Your task to perform on an android device: Add "acer predator" to the cart on ebay.com Image 0: 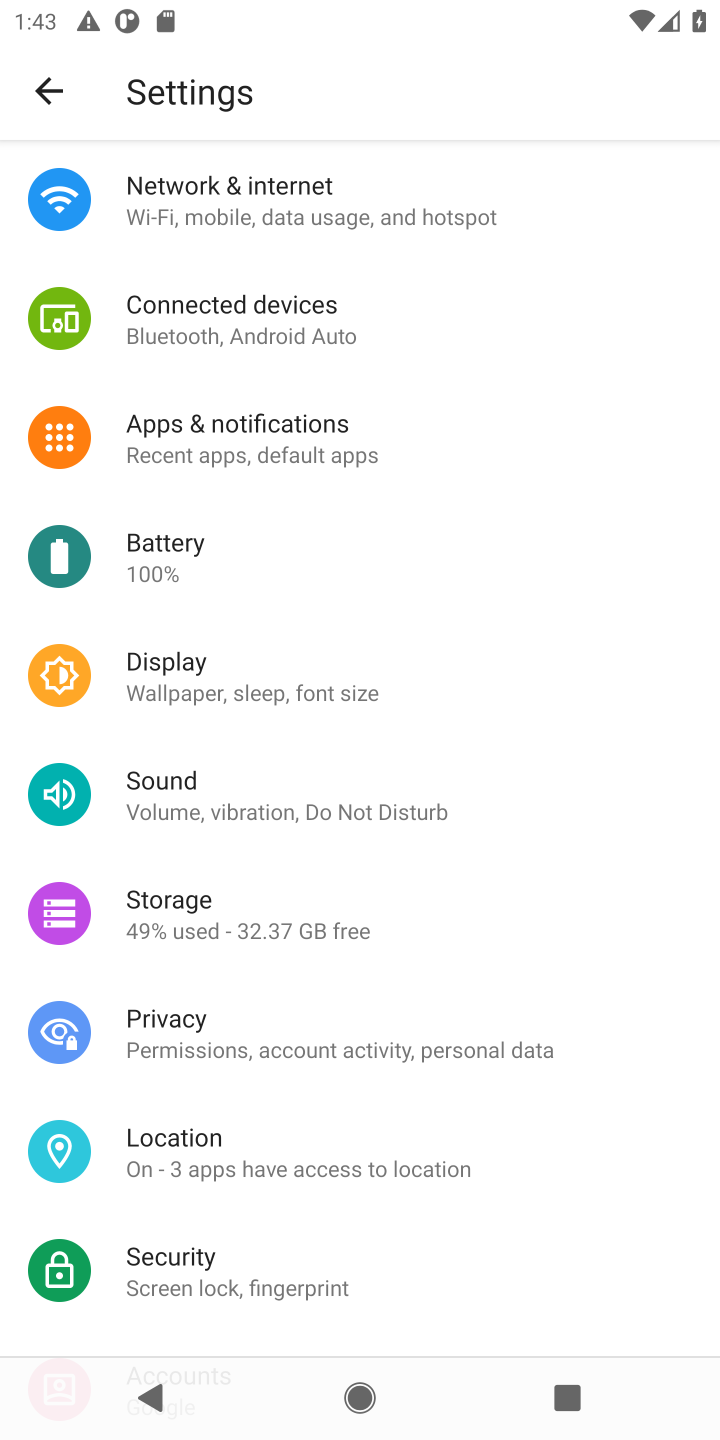
Step 0: press home button
Your task to perform on an android device: Add "acer predator" to the cart on ebay.com Image 1: 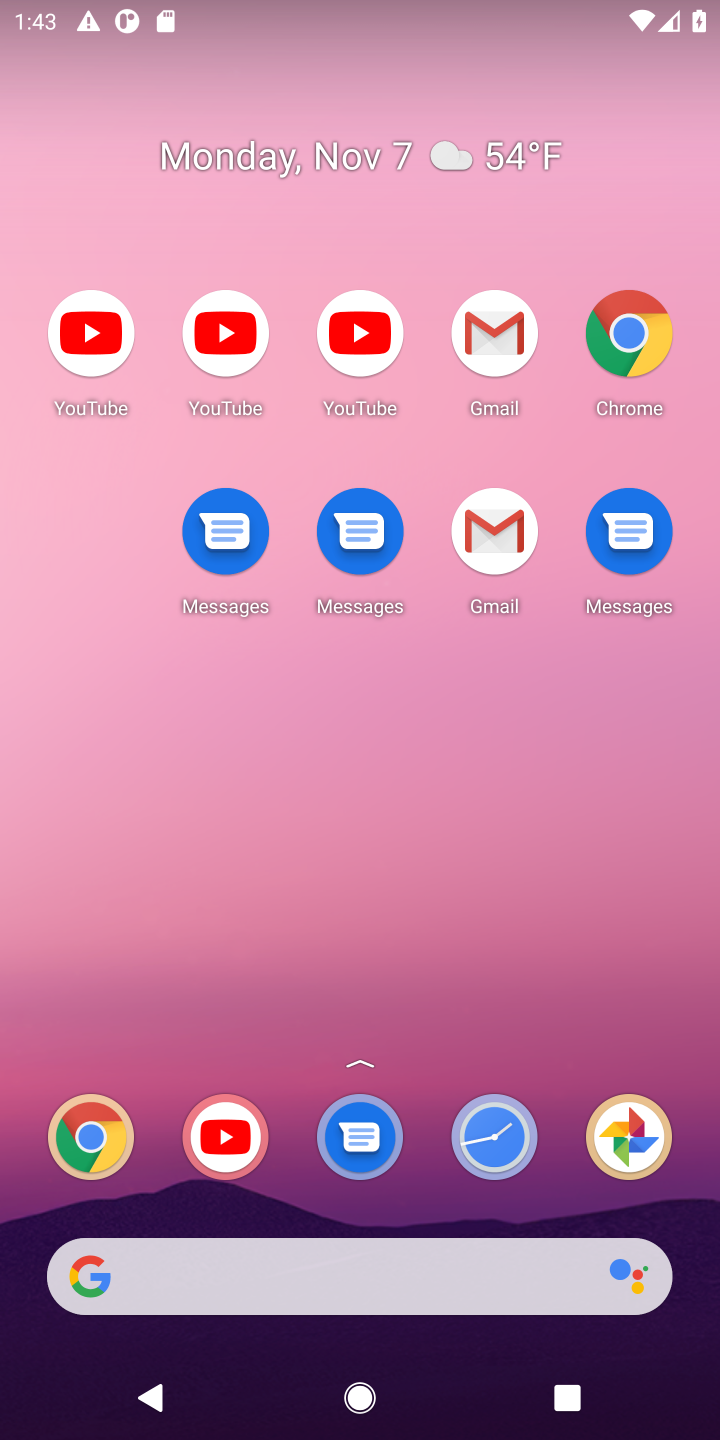
Step 1: drag from (459, 1154) to (450, 251)
Your task to perform on an android device: Add "acer predator" to the cart on ebay.com Image 2: 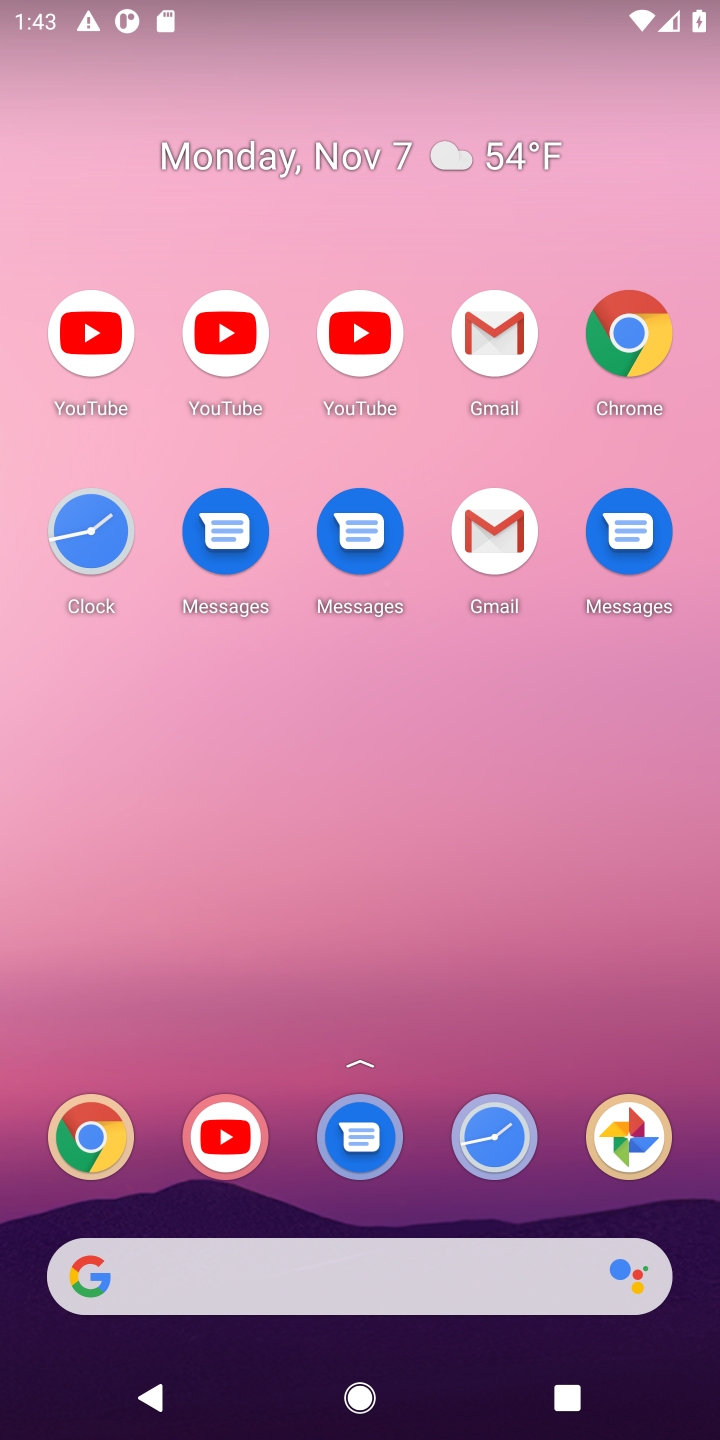
Step 2: drag from (424, 1122) to (311, 273)
Your task to perform on an android device: Add "acer predator" to the cart on ebay.com Image 3: 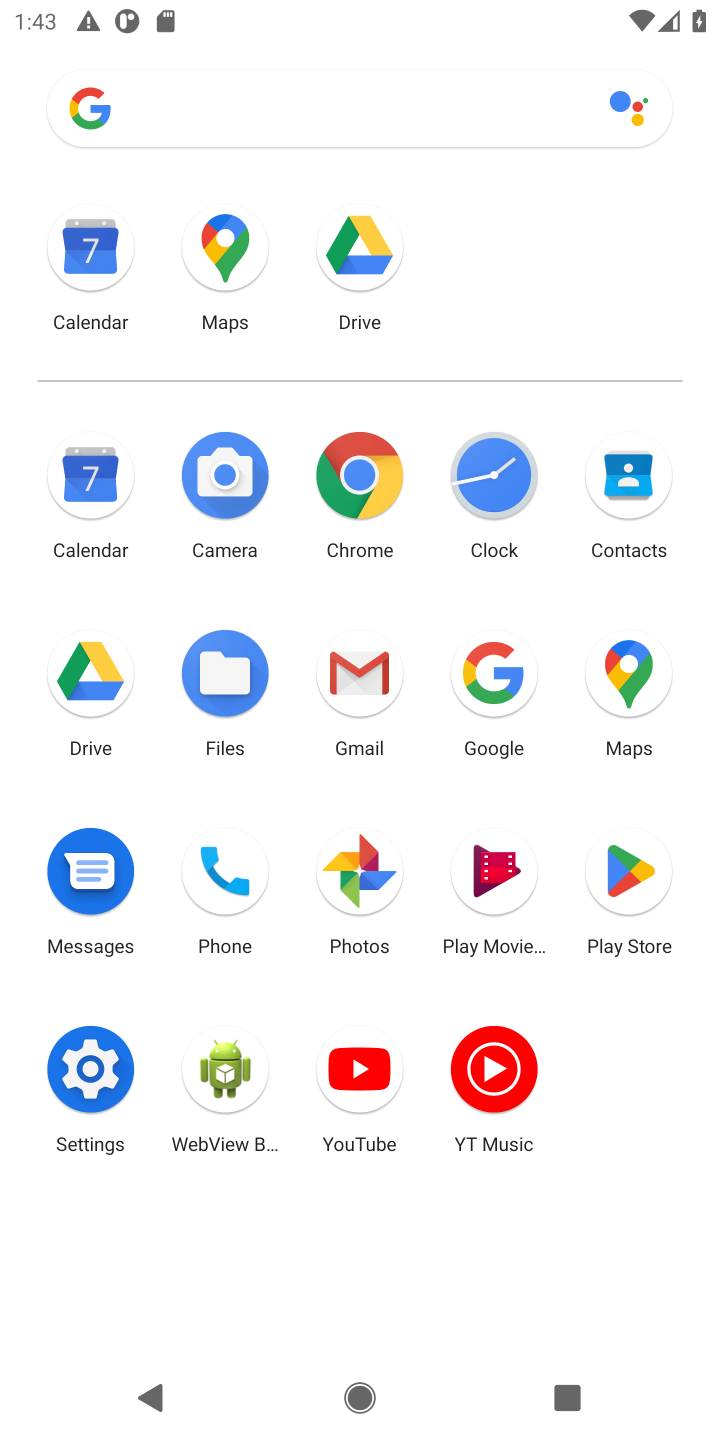
Step 3: click (358, 480)
Your task to perform on an android device: Add "acer predator" to the cart on ebay.com Image 4: 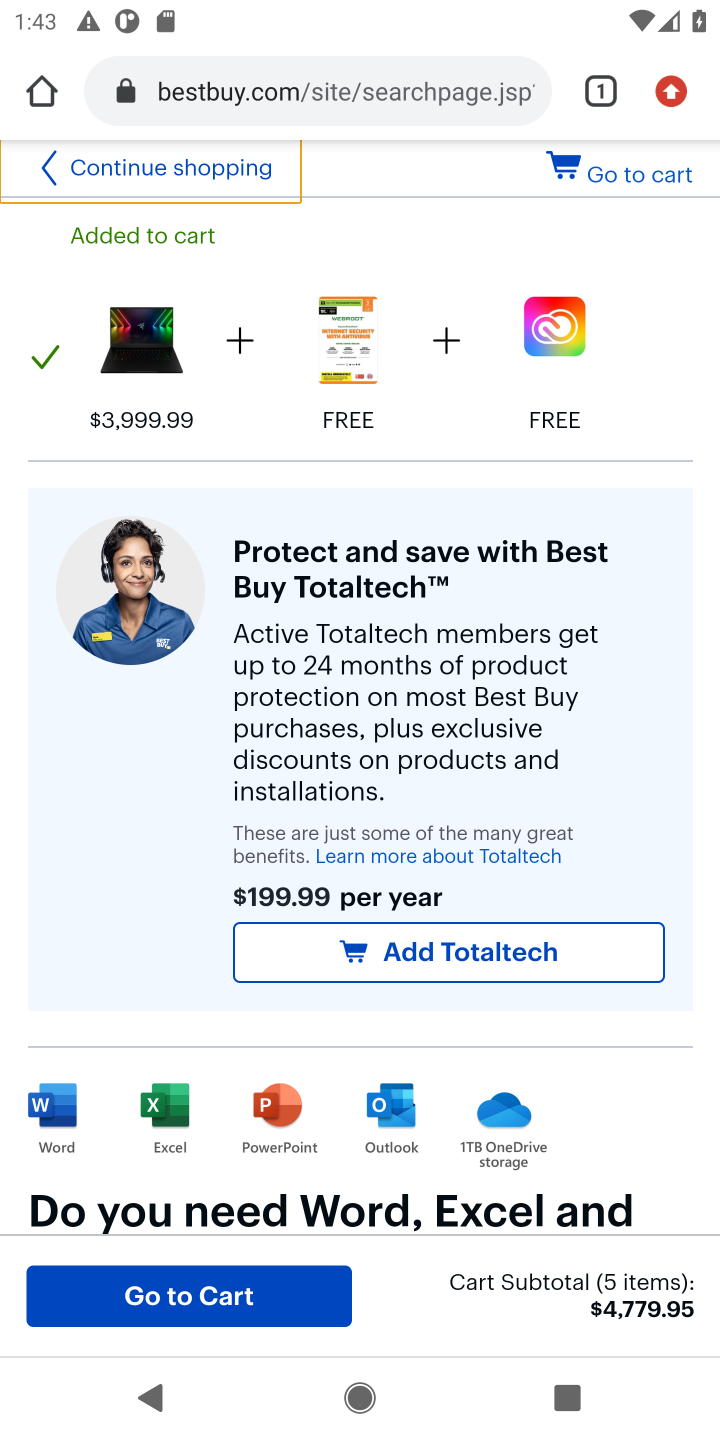
Step 4: click (436, 72)
Your task to perform on an android device: Add "acer predator" to the cart on ebay.com Image 5: 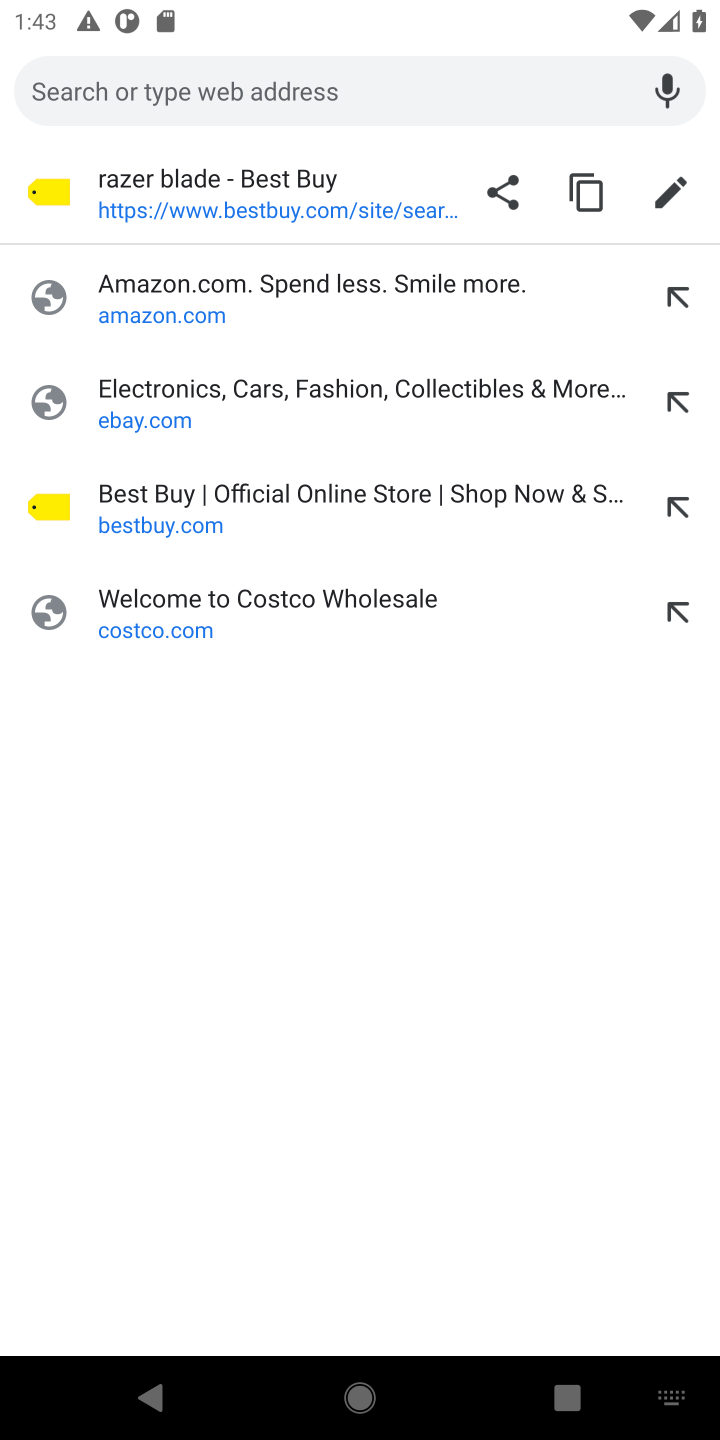
Step 5: type "ebay.com"
Your task to perform on an android device: Add "acer predator" to the cart on ebay.com Image 6: 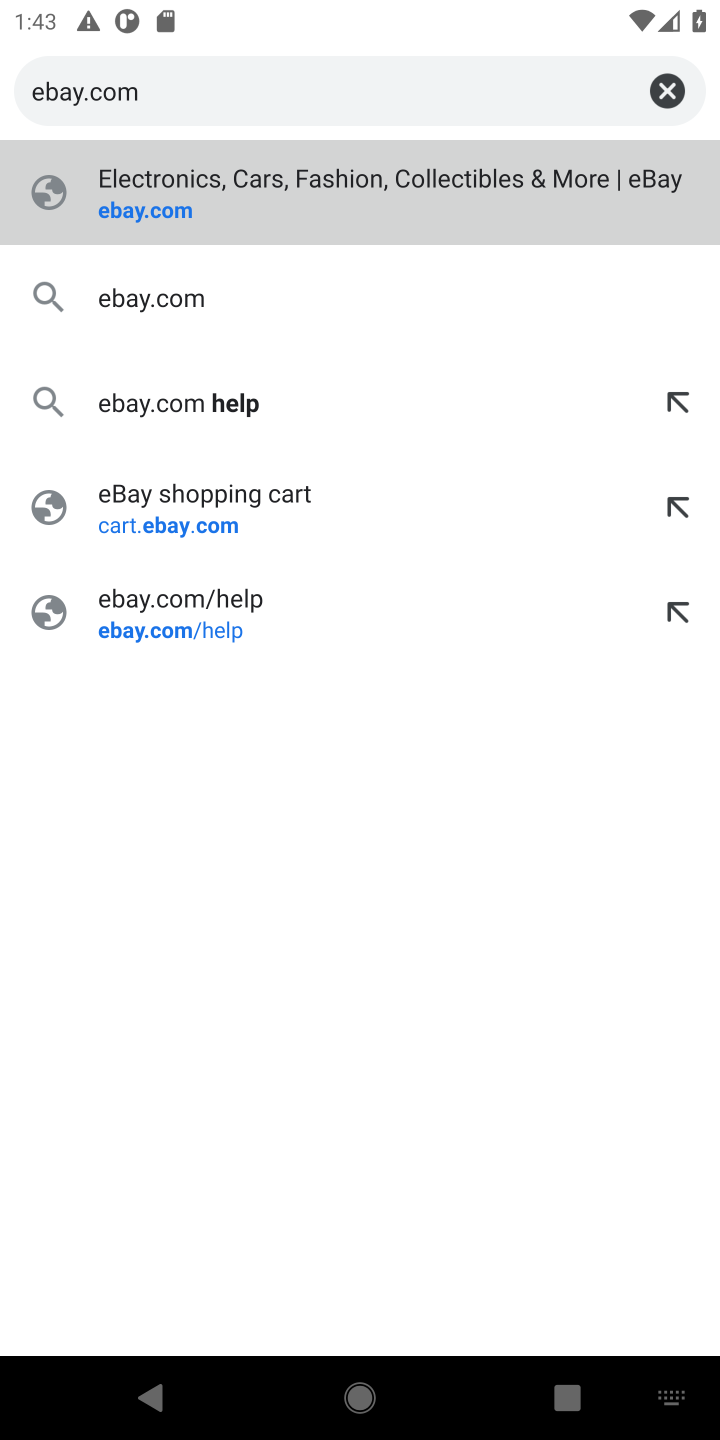
Step 6: press enter
Your task to perform on an android device: Add "acer predator" to the cart on ebay.com Image 7: 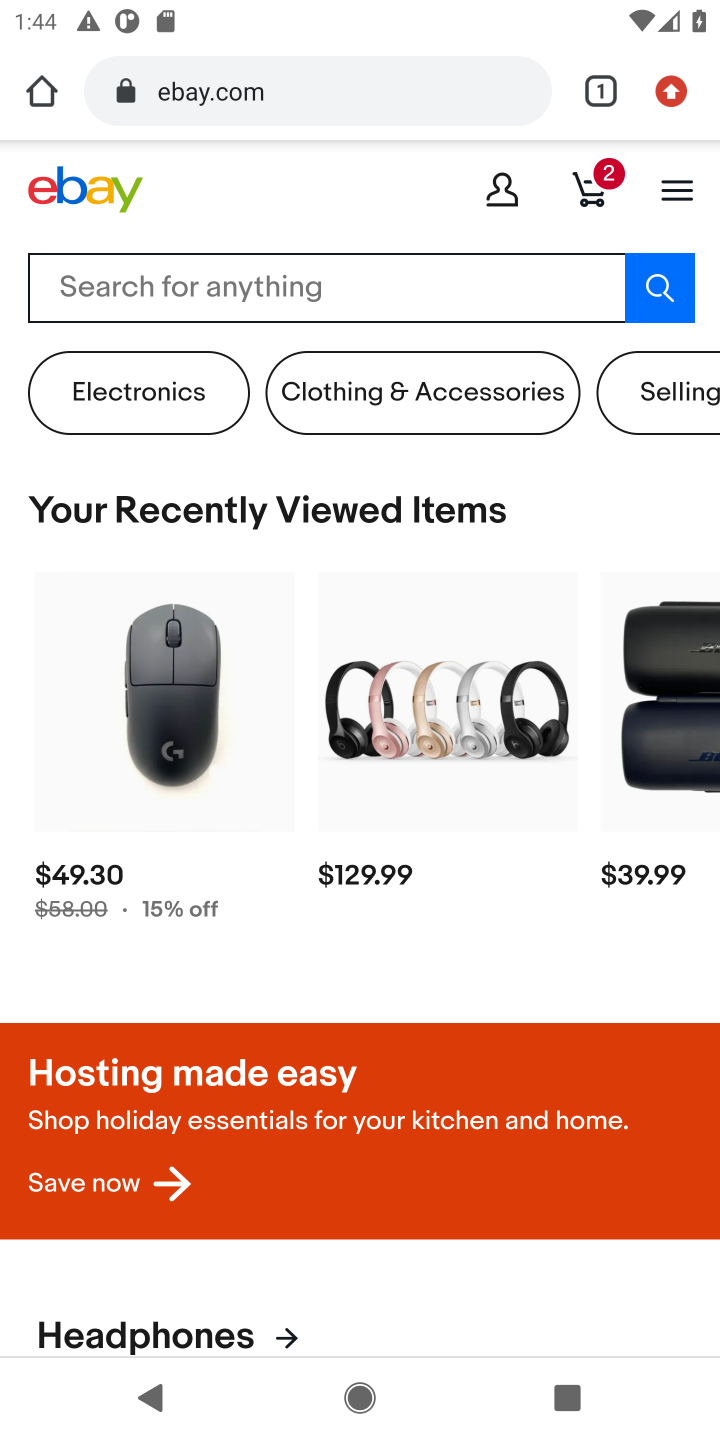
Step 7: click (426, 288)
Your task to perform on an android device: Add "acer predator" to the cart on ebay.com Image 8: 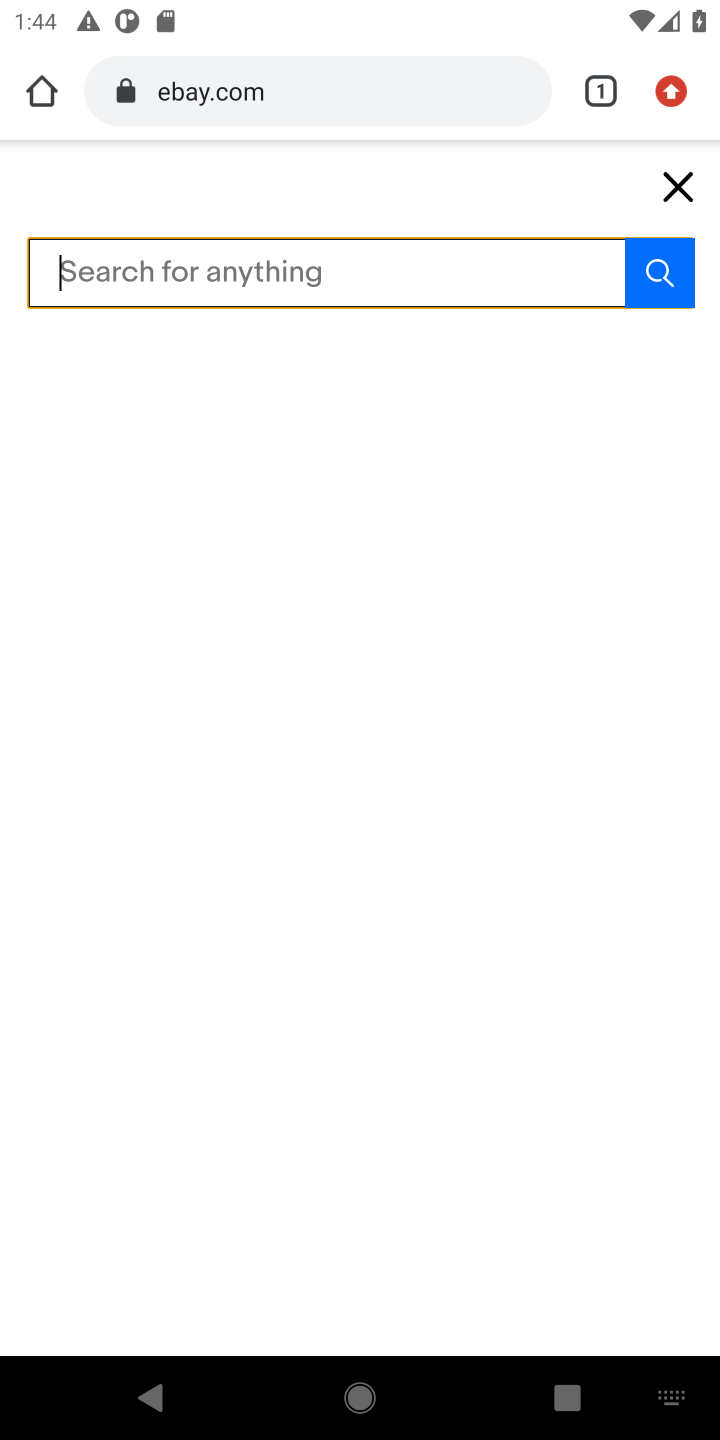
Step 8: type "acer predator"
Your task to perform on an android device: Add "acer predator" to the cart on ebay.com Image 9: 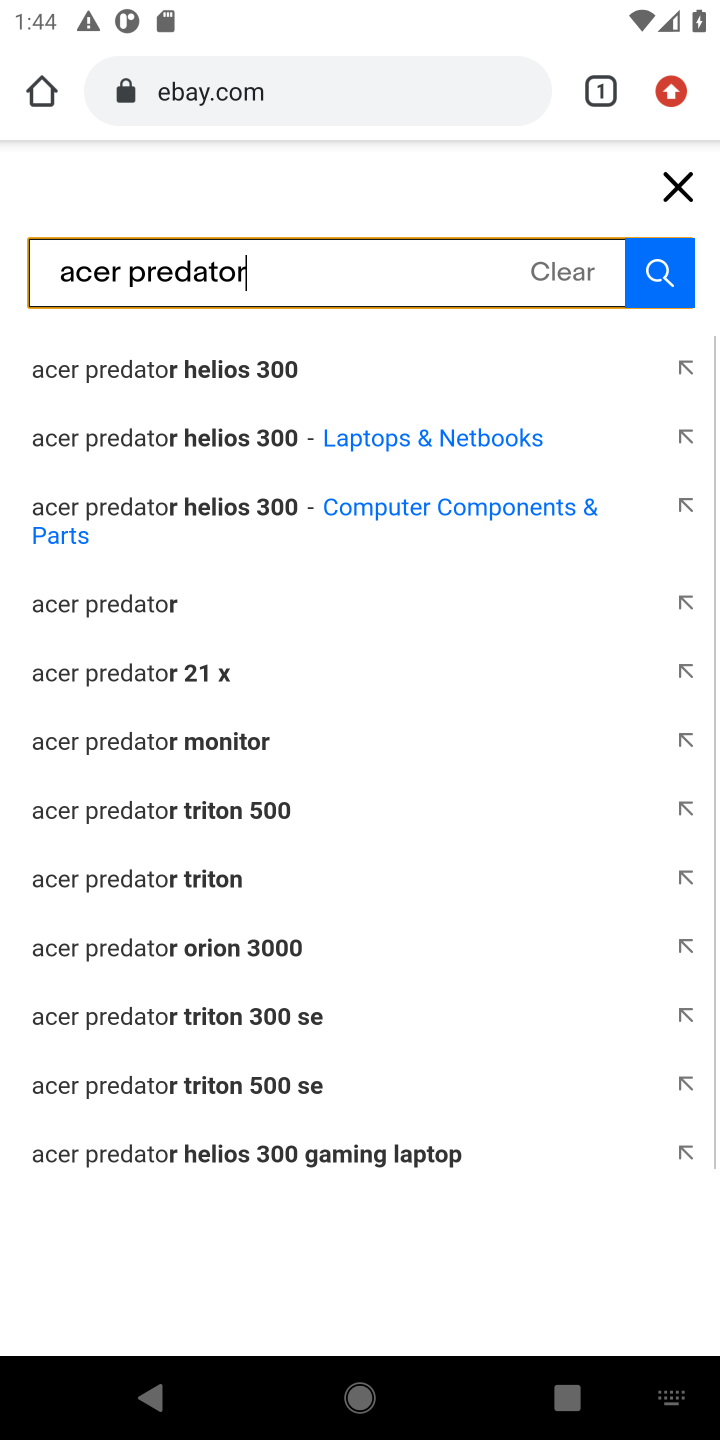
Step 9: press enter
Your task to perform on an android device: Add "acer predator" to the cart on ebay.com Image 10: 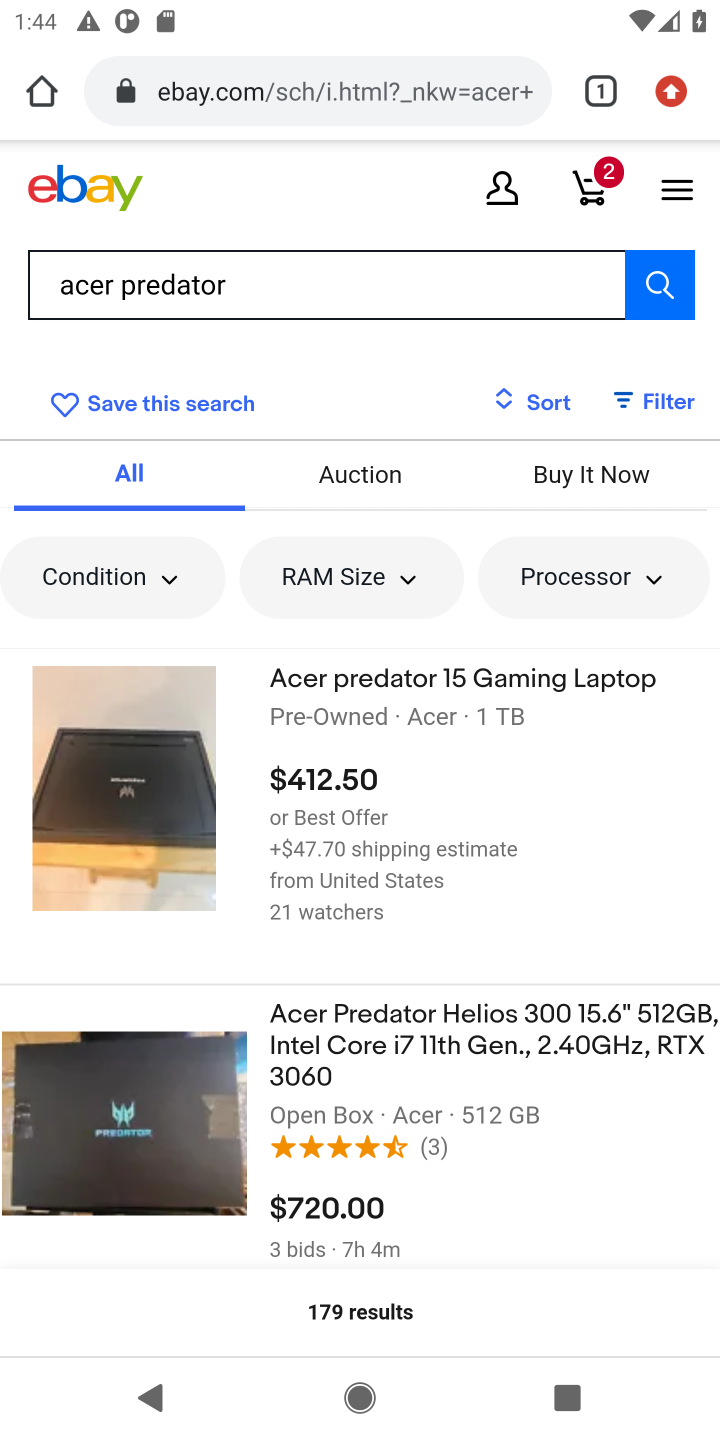
Step 10: click (133, 777)
Your task to perform on an android device: Add "acer predator" to the cart on ebay.com Image 11: 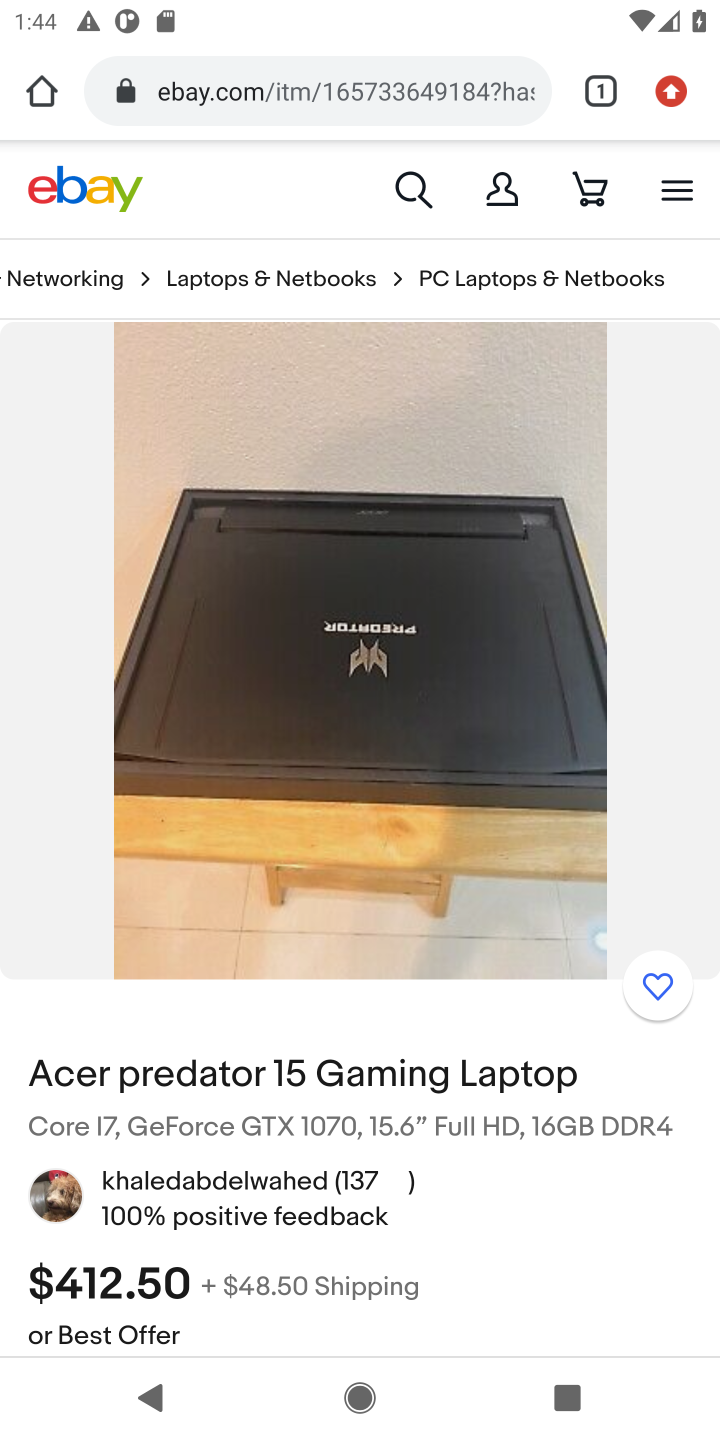
Step 11: drag from (464, 1075) to (449, 364)
Your task to perform on an android device: Add "acer predator" to the cart on ebay.com Image 12: 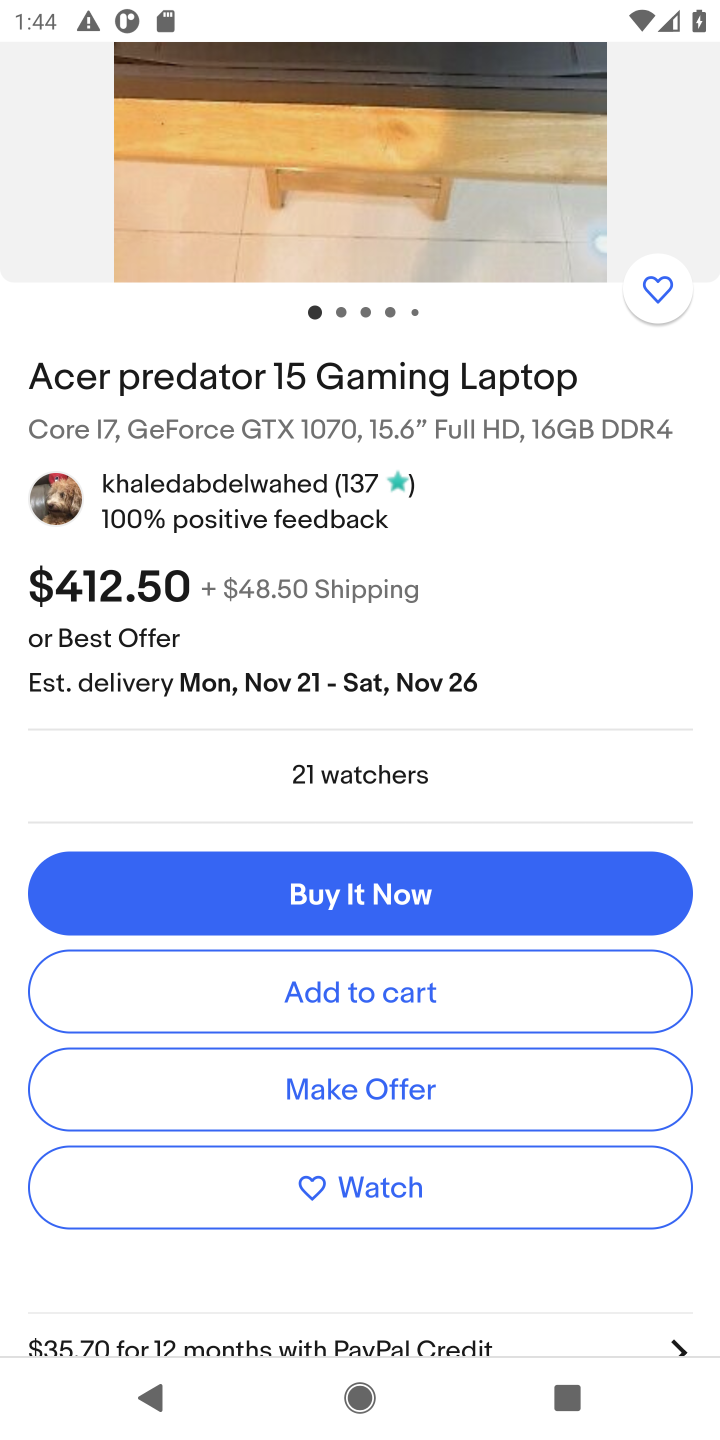
Step 12: click (420, 989)
Your task to perform on an android device: Add "acer predator" to the cart on ebay.com Image 13: 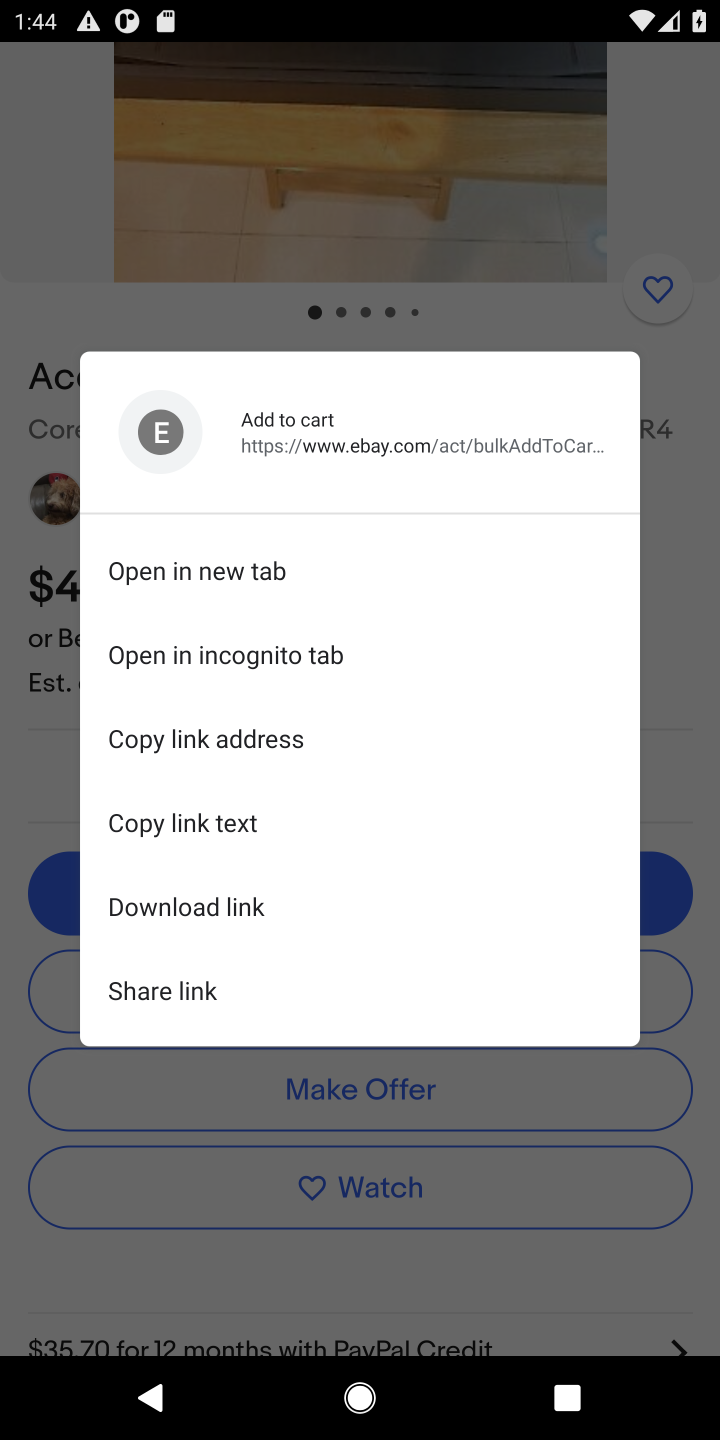
Step 13: click (691, 769)
Your task to perform on an android device: Add "acer predator" to the cart on ebay.com Image 14: 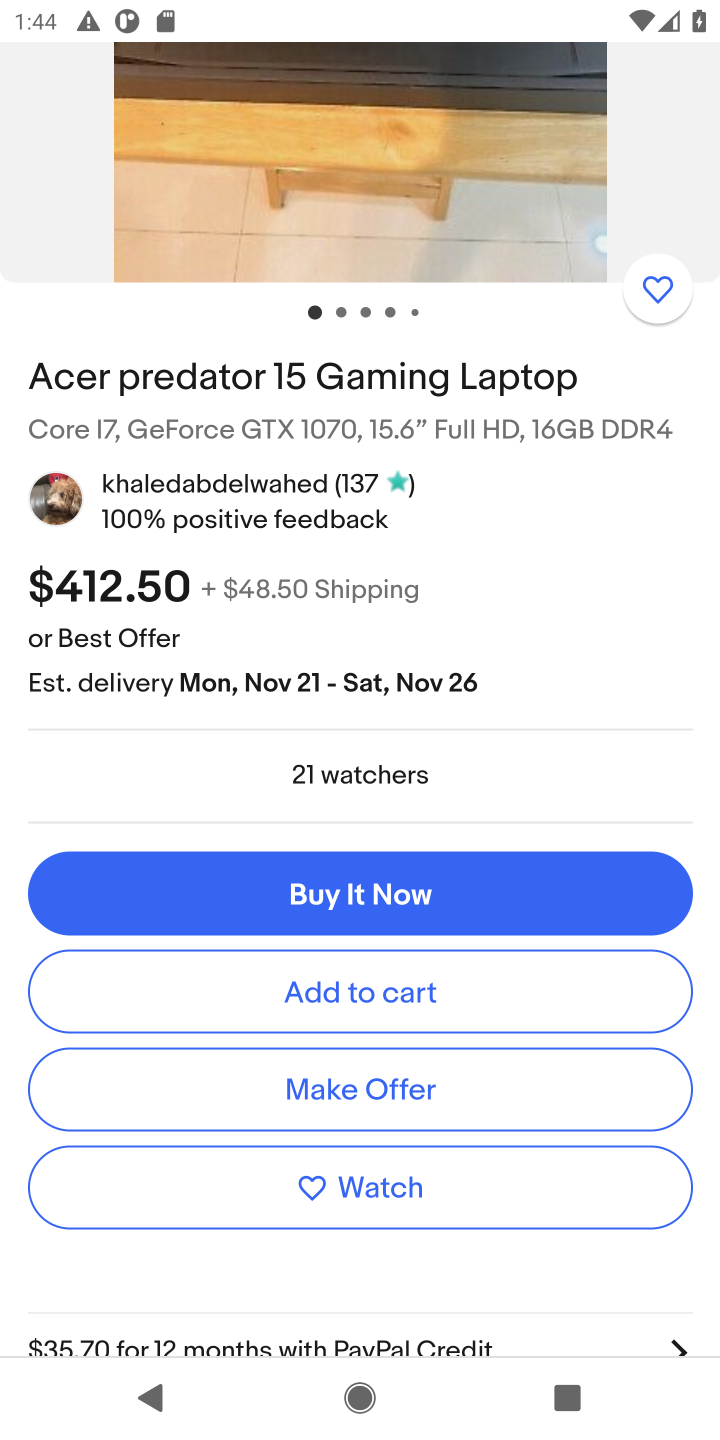
Step 14: click (391, 1001)
Your task to perform on an android device: Add "acer predator" to the cart on ebay.com Image 15: 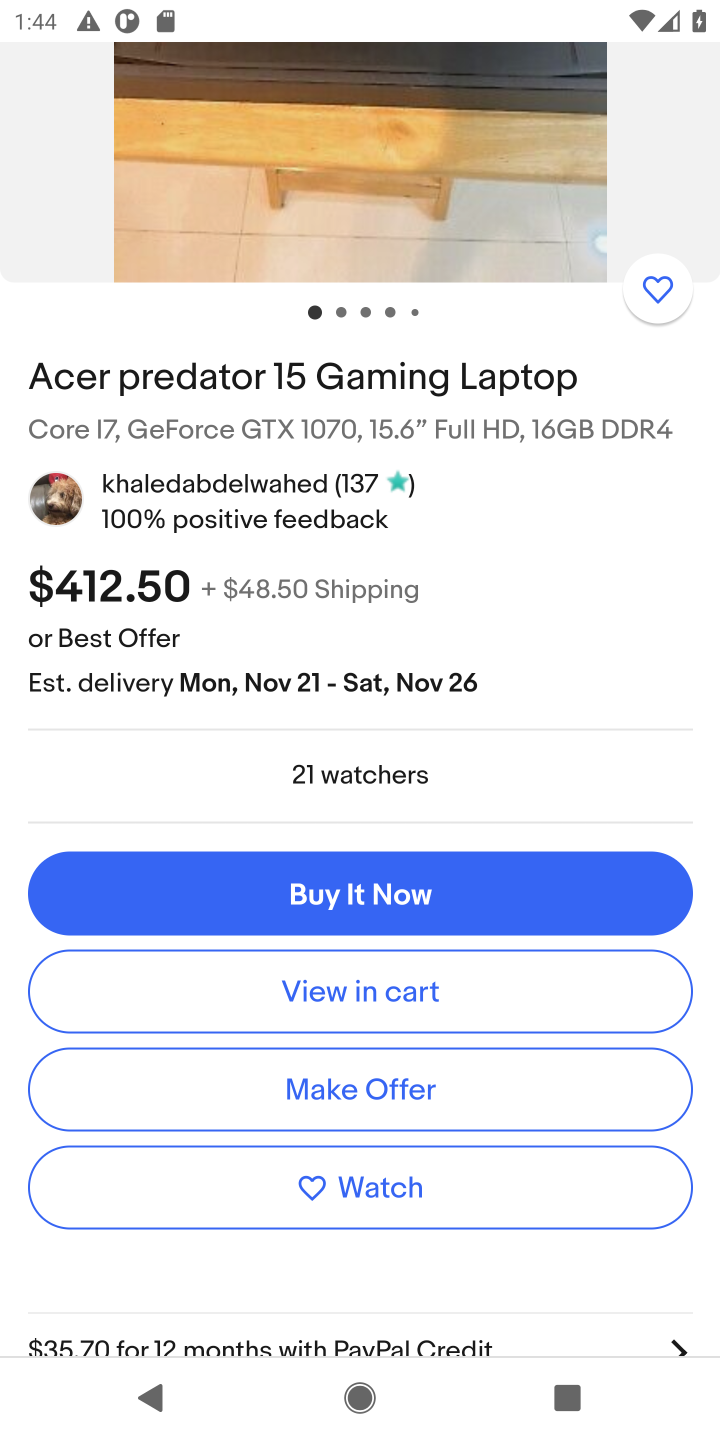
Step 15: task complete